Your task to perform on an android device: Open settings on Google Maps Image 0: 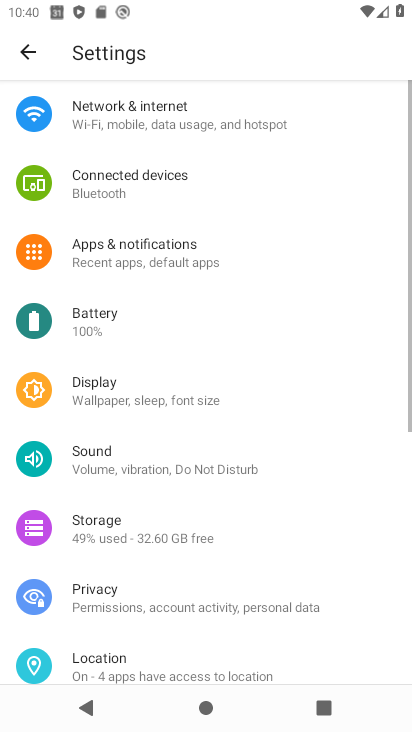
Step 0: press home button
Your task to perform on an android device: Open settings on Google Maps Image 1: 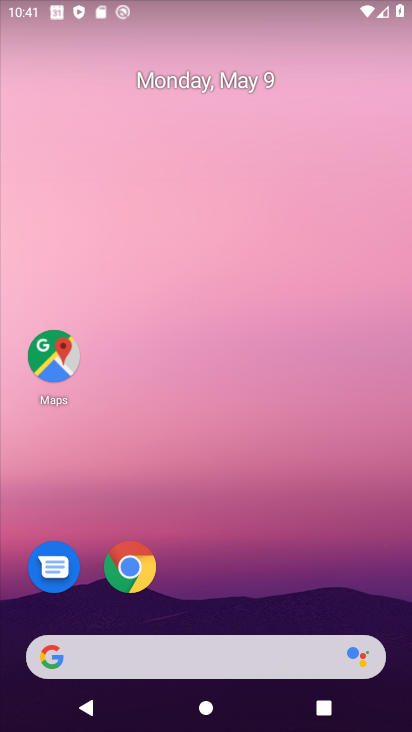
Step 1: click (53, 362)
Your task to perform on an android device: Open settings on Google Maps Image 2: 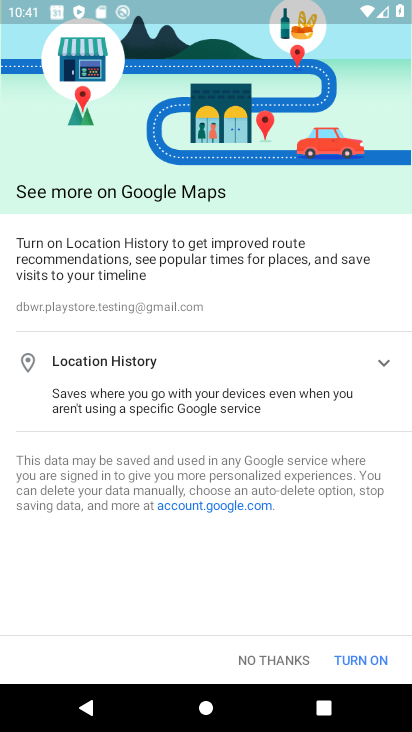
Step 2: click (247, 653)
Your task to perform on an android device: Open settings on Google Maps Image 3: 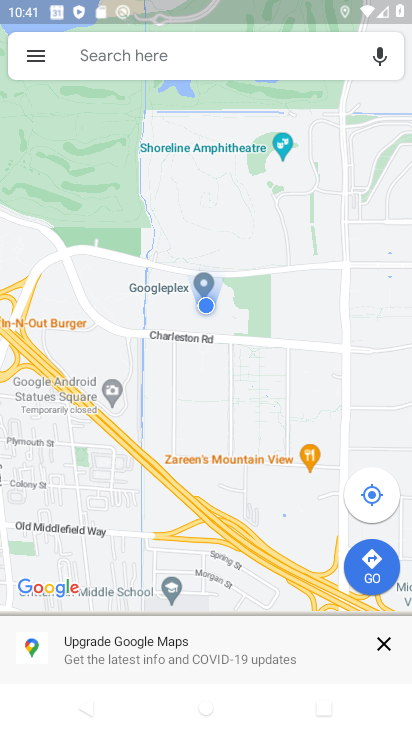
Step 3: click (47, 53)
Your task to perform on an android device: Open settings on Google Maps Image 4: 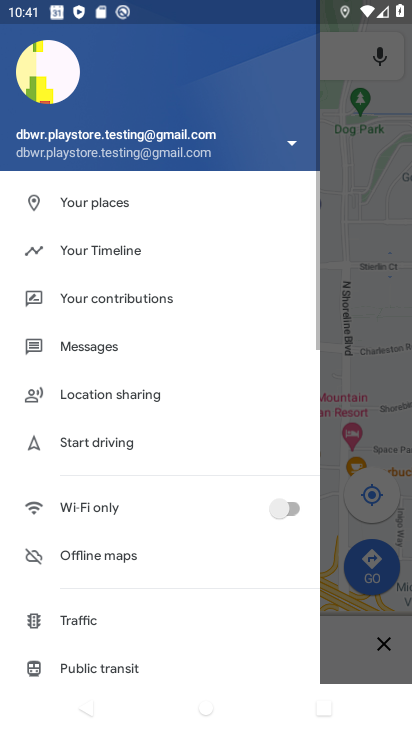
Step 4: drag from (131, 623) to (140, 110)
Your task to perform on an android device: Open settings on Google Maps Image 5: 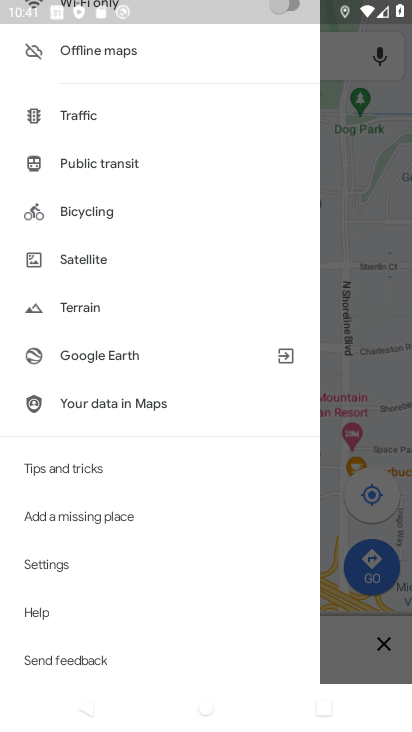
Step 5: click (89, 576)
Your task to perform on an android device: Open settings on Google Maps Image 6: 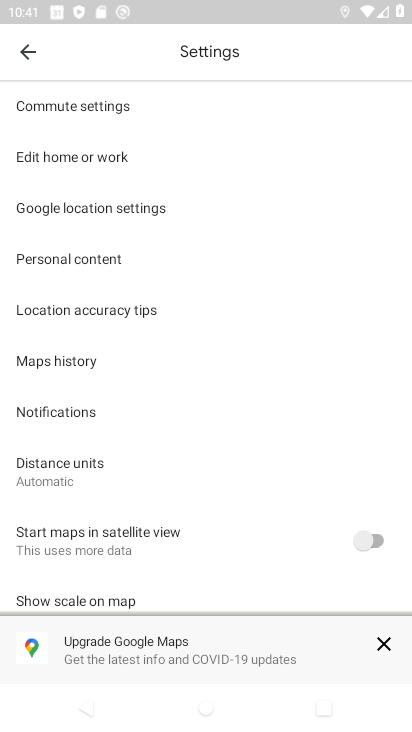
Step 6: task complete